Your task to perform on an android device: Go to Android settings Image 0: 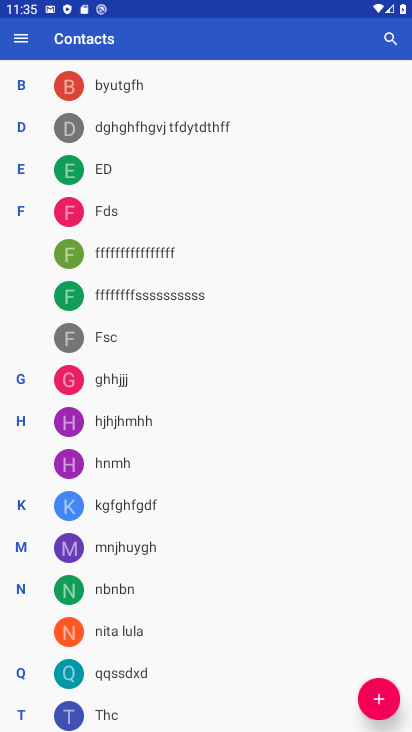
Step 0: press home button
Your task to perform on an android device: Go to Android settings Image 1: 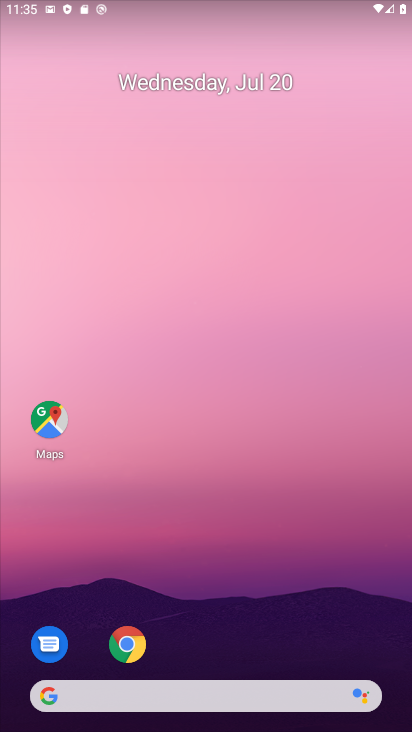
Step 1: drag from (372, 644) to (318, 77)
Your task to perform on an android device: Go to Android settings Image 2: 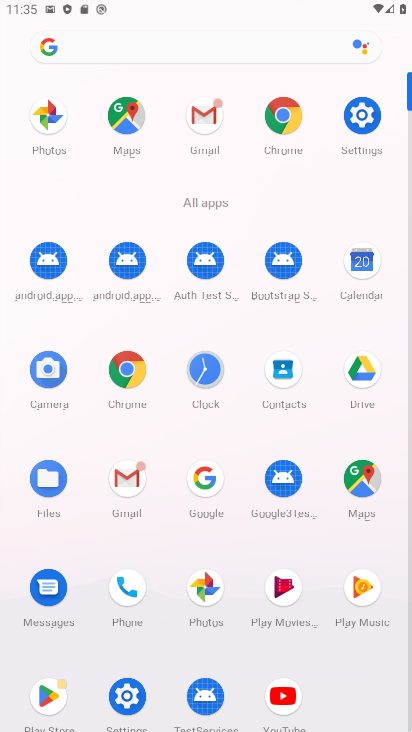
Step 2: click (128, 698)
Your task to perform on an android device: Go to Android settings Image 3: 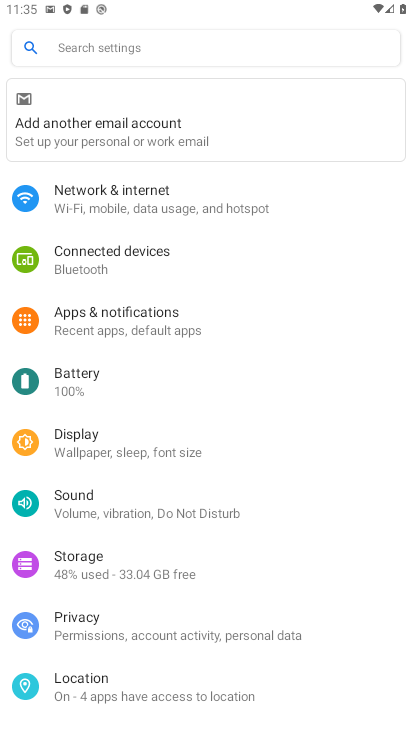
Step 3: drag from (347, 680) to (319, 292)
Your task to perform on an android device: Go to Android settings Image 4: 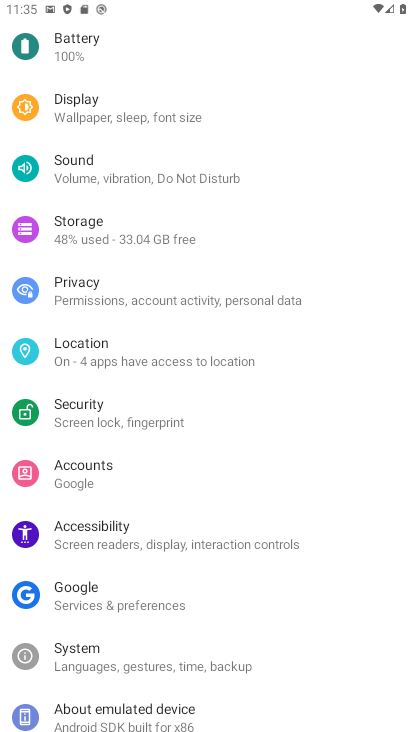
Step 4: drag from (312, 686) to (319, 302)
Your task to perform on an android device: Go to Android settings Image 5: 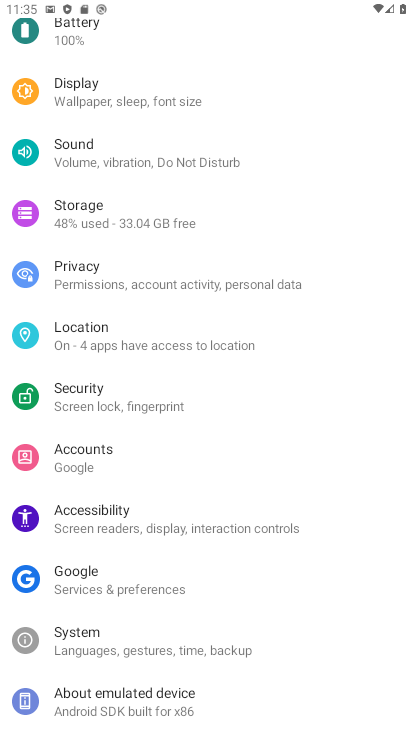
Step 5: click (107, 687)
Your task to perform on an android device: Go to Android settings Image 6: 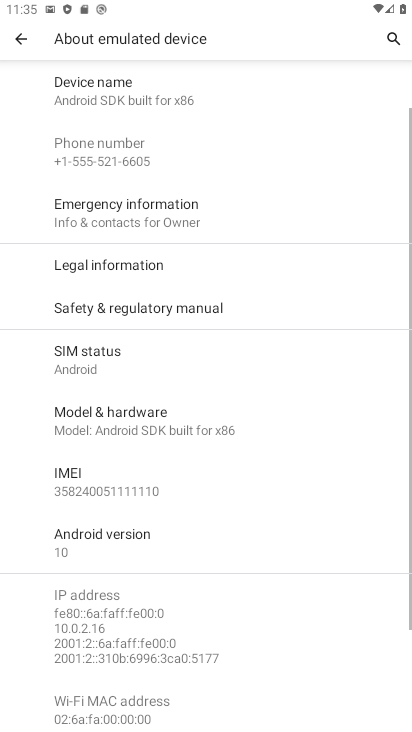
Step 6: task complete